Your task to perform on an android device: What's the weather going to be this weekend? Image 0: 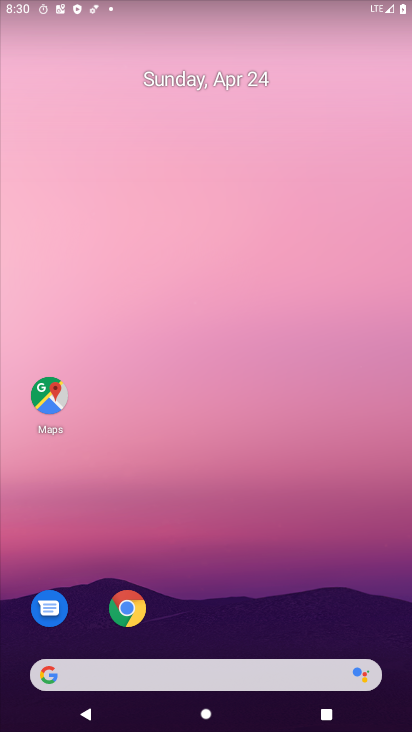
Step 0: click (147, 674)
Your task to perform on an android device: What's the weather going to be this weekend? Image 1: 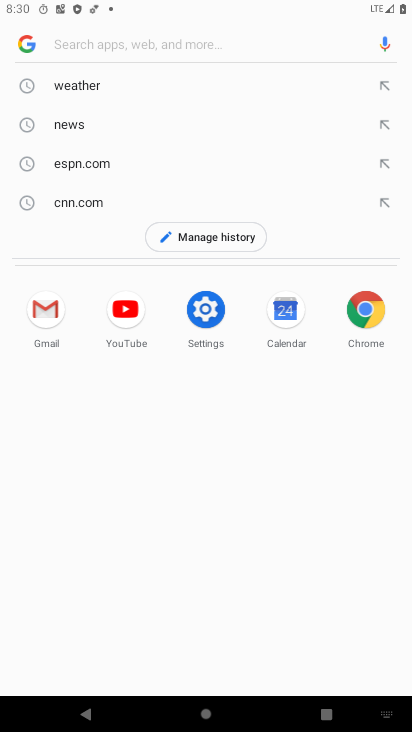
Step 1: click (30, 38)
Your task to perform on an android device: What's the weather going to be this weekend? Image 2: 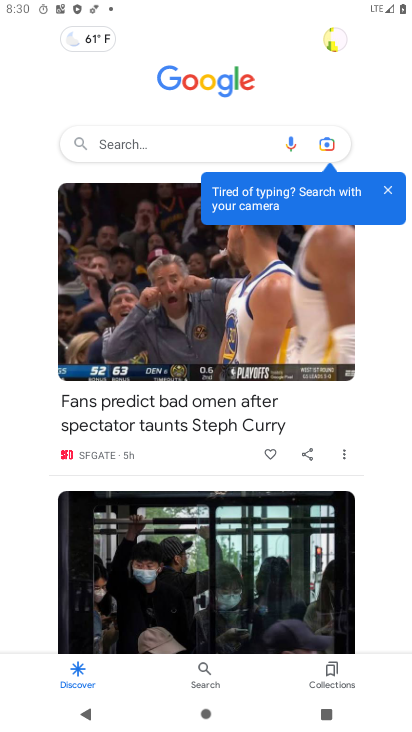
Step 2: click (92, 37)
Your task to perform on an android device: What's the weather going to be this weekend? Image 3: 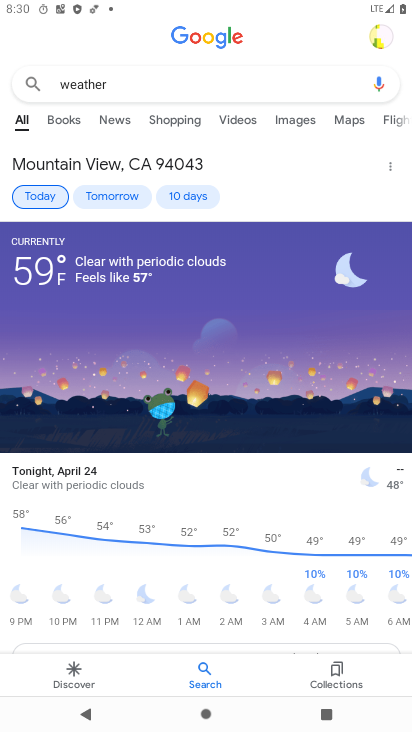
Step 3: click (189, 195)
Your task to perform on an android device: What's the weather going to be this weekend? Image 4: 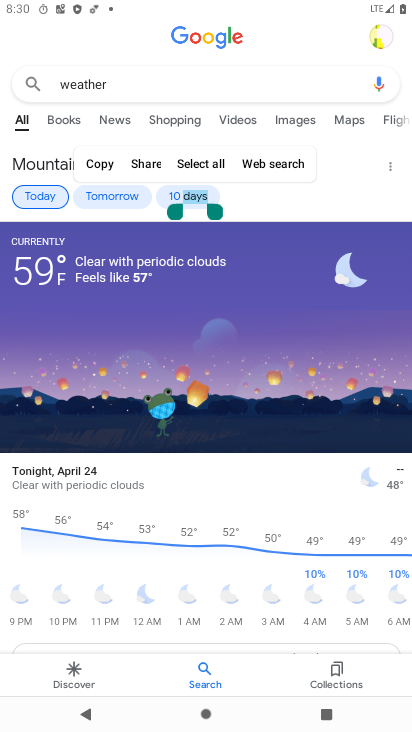
Step 4: click (189, 195)
Your task to perform on an android device: What's the weather going to be this weekend? Image 5: 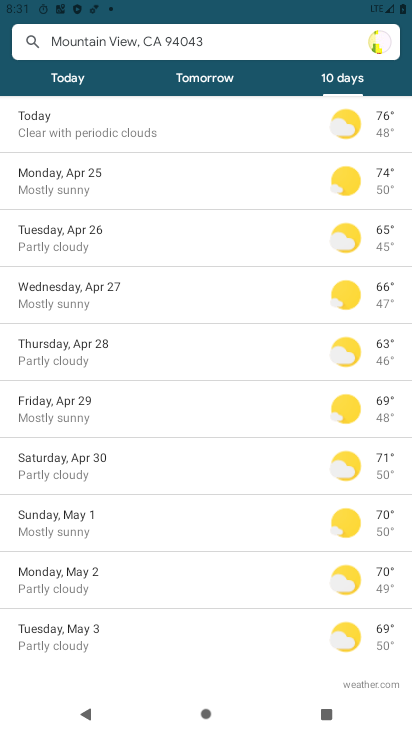
Step 5: click (133, 454)
Your task to perform on an android device: What's the weather going to be this weekend? Image 6: 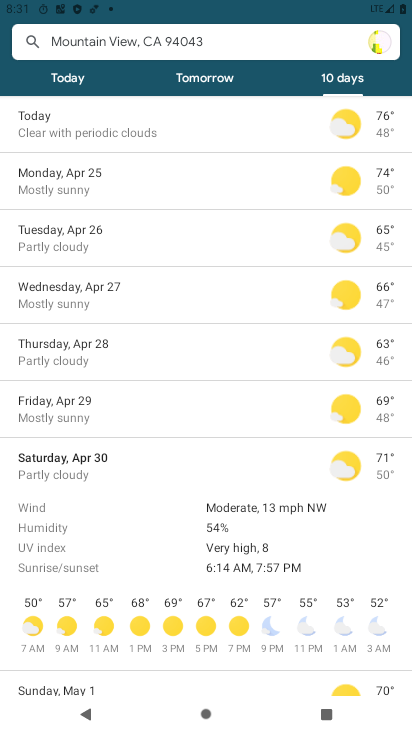
Step 6: task complete